Your task to perform on an android device: open the mobile data screen to see how much data has been used Image 0: 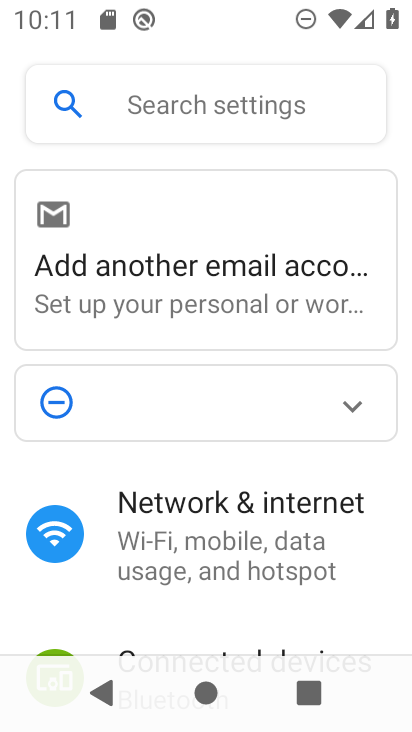
Step 0: drag from (224, 547) to (300, 38)
Your task to perform on an android device: open the mobile data screen to see how much data has been used Image 1: 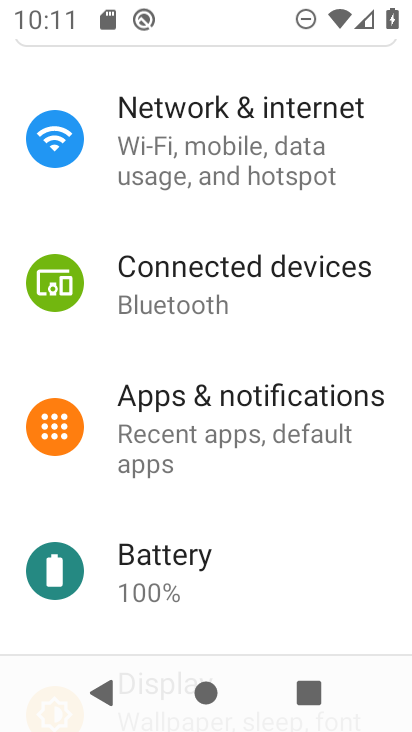
Step 1: click (274, 148)
Your task to perform on an android device: open the mobile data screen to see how much data has been used Image 2: 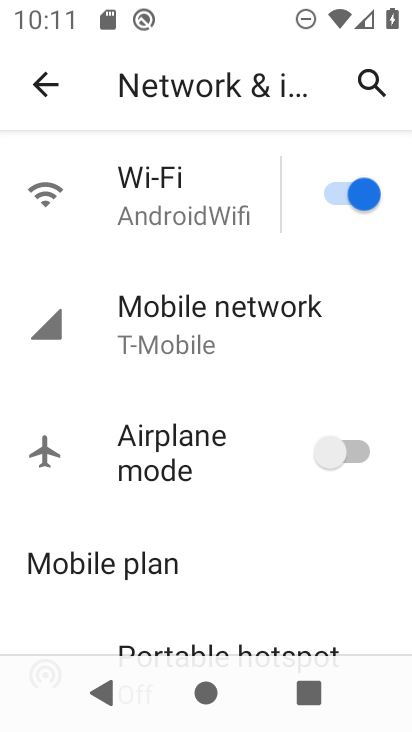
Step 2: drag from (182, 577) to (201, 544)
Your task to perform on an android device: open the mobile data screen to see how much data has been used Image 3: 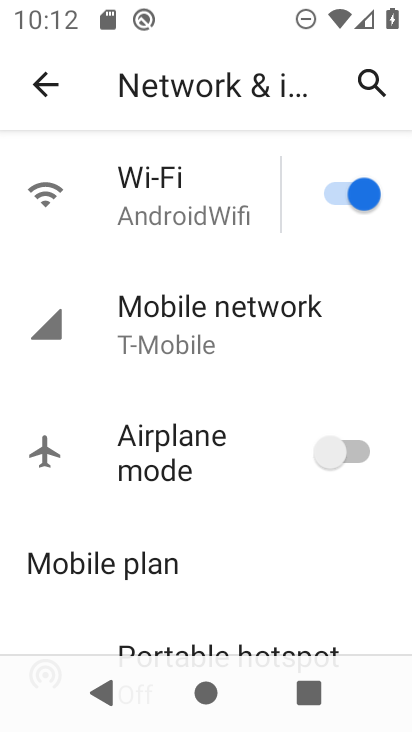
Step 3: click (181, 317)
Your task to perform on an android device: open the mobile data screen to see how much data has been used Image 4: 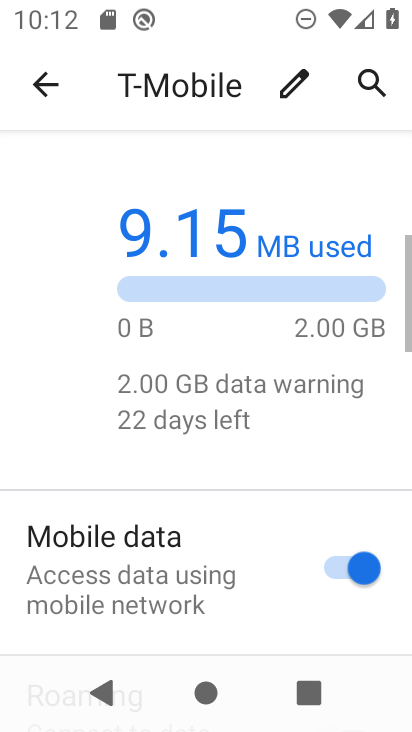
Step 4: drag from (176, 627) to (285, 26)
Your task to perform on an android device: open the mobile data screen to see how much data has been used Image 5: 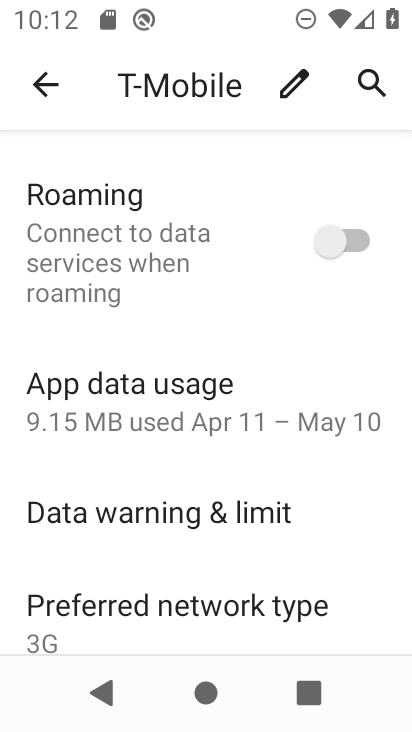
Step 5: click (179, 422)
Your task to perform on an android device: open the mobile data screen to see how much data has been used Image 6: 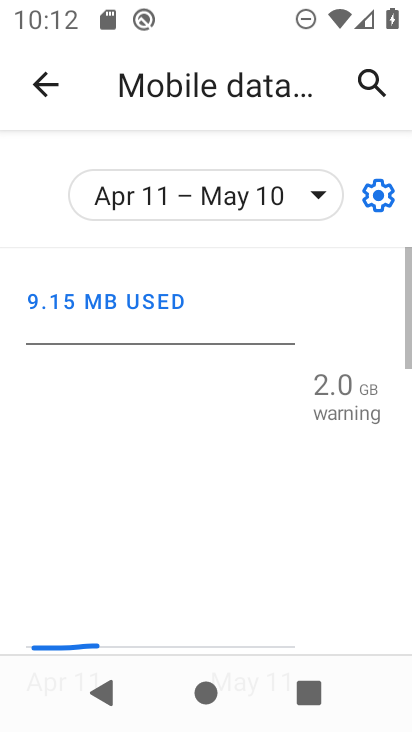
Step 6: task complete